Your task to perform on an android device: turn off location Image 0: 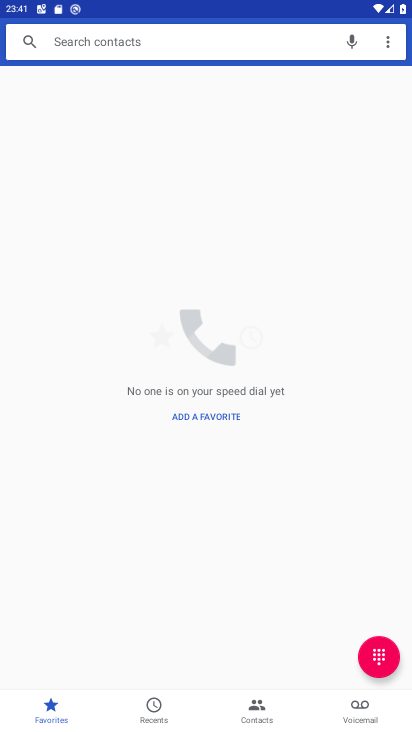
Step 0: press home button
Your task to perform on an android device: turn off location Image 1: 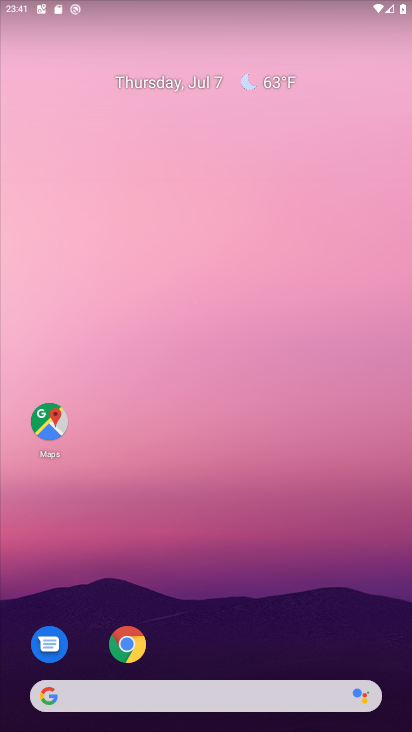
Step 1: drag from (220, 723) to (208, 60)
Your task to perform on an android device: turn off location Image 2: 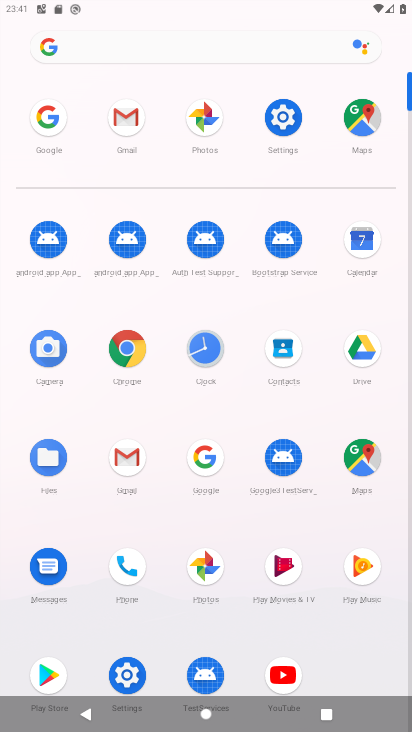
Step 2: click (280, 121)
Your task to perform on an android device: turn off location Image 3: 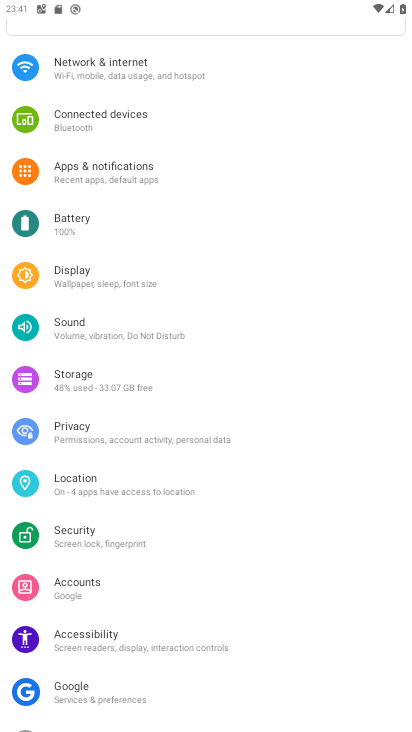
Step 3: click (80, 486)
Your task to perform on an android device: turn off location Image 4: 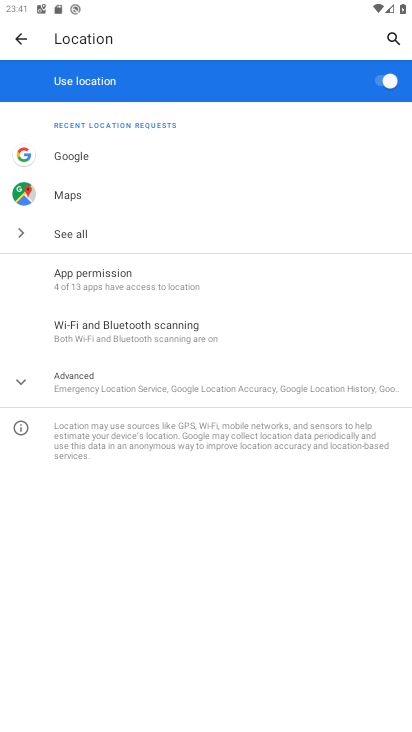
Step 4: click (382, 82)
Your task to perform on an android device: turn off location Image 5: 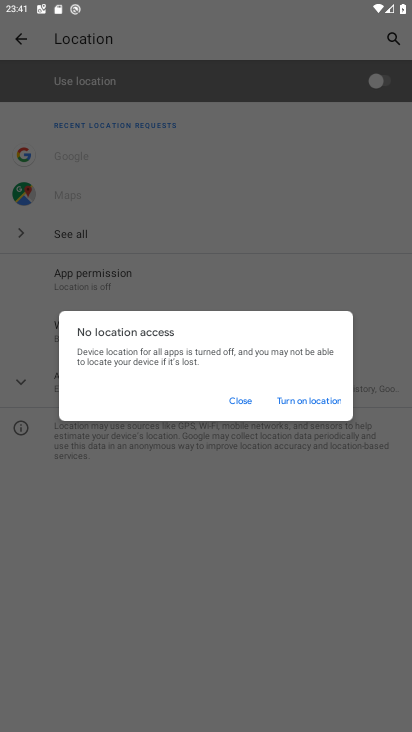
Step 5: task complete